Your task to perform on an android device: Open Youtube and go to "Your channel" Image 0: 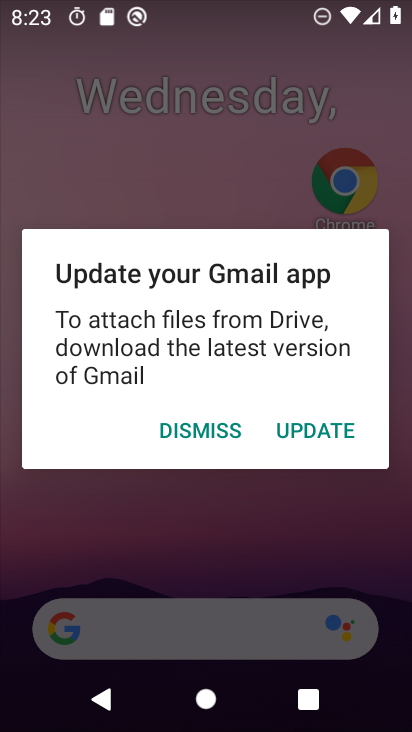
Step 0: press home button
Your task to perform on an android device: Open Youtube and go to "Your channel" Image 1: 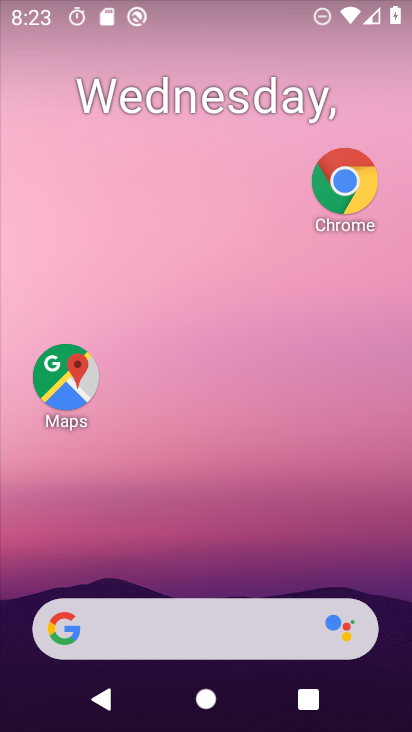
Step 1: drag from (237, 665) to (167, 232)
Your task to perform on an android device: Open Youtube and go to "Your channel" Image 2: 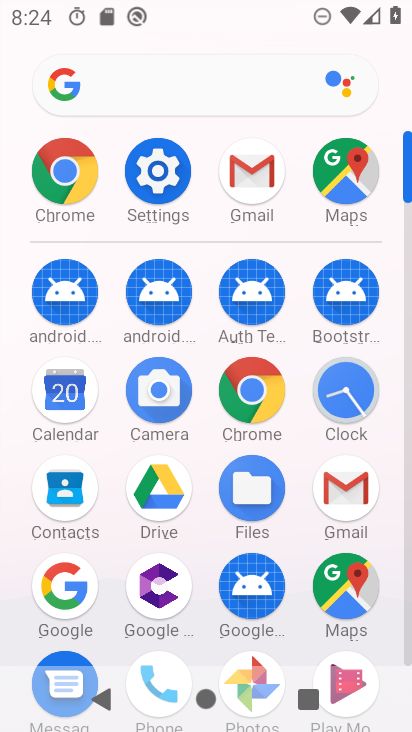
Step 2: drag from (209, 562) to (205, 299)
Your task to perform on an android device: Open Youtube and go to "Your channel" Image 3: 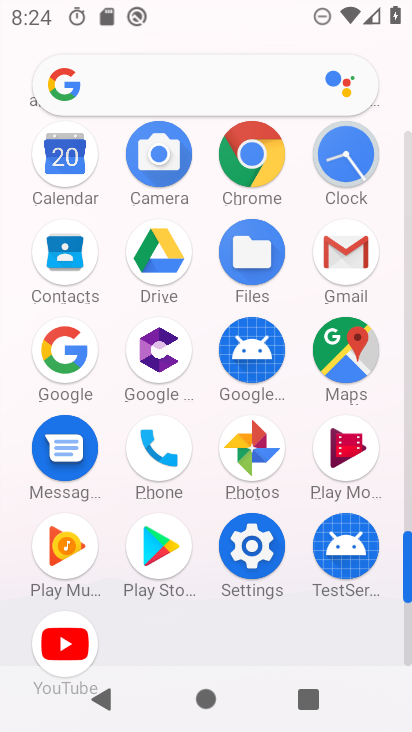
Step 3: click (71, 634)
Your task to perform on an android device: Open Youtube and go to "Your channel" Image 4: 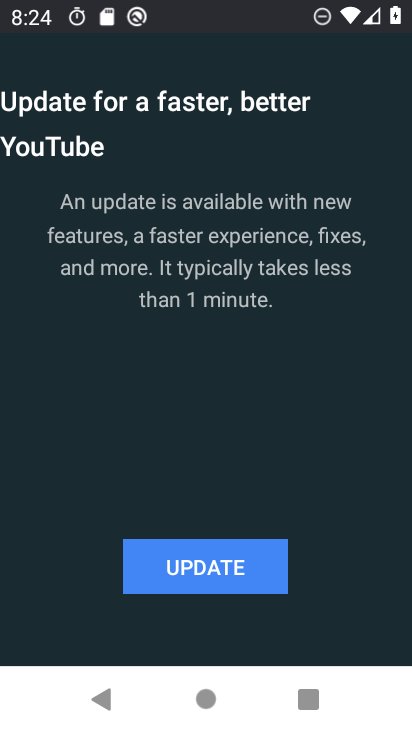
Step 4: click (198, 570)
Your task to perform on an android device: Open Youtube and go to "Your channel" Image 5: 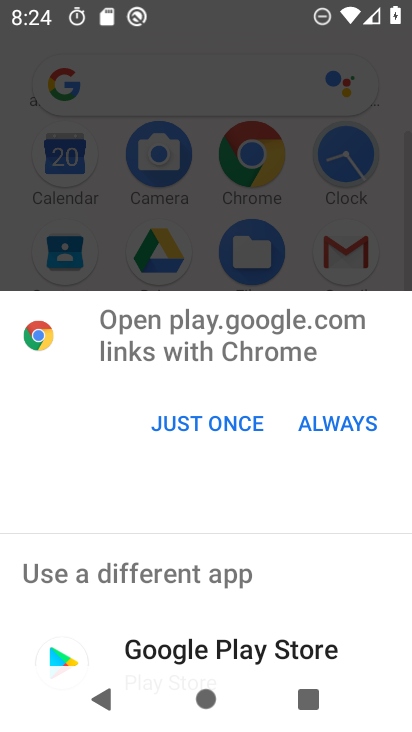
Step 5: click (129, 640)
Your task to perform on an android device: Open Youtube and go to "Your channel" Image 6: 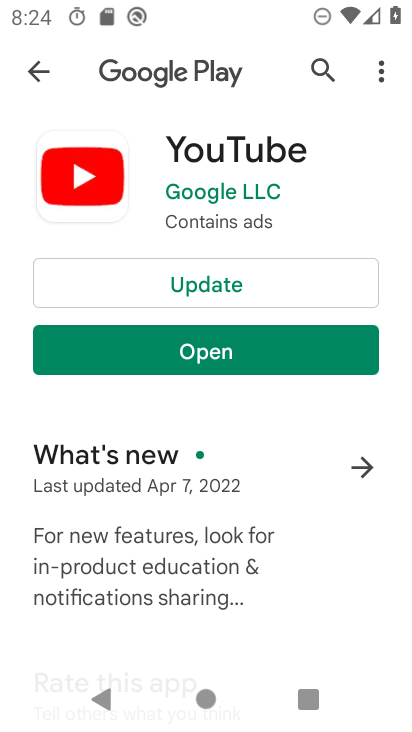
Step 6: click (188, 349)
Your task to perform on an android device: Open Youtube and go to "Your channel" Image 7: 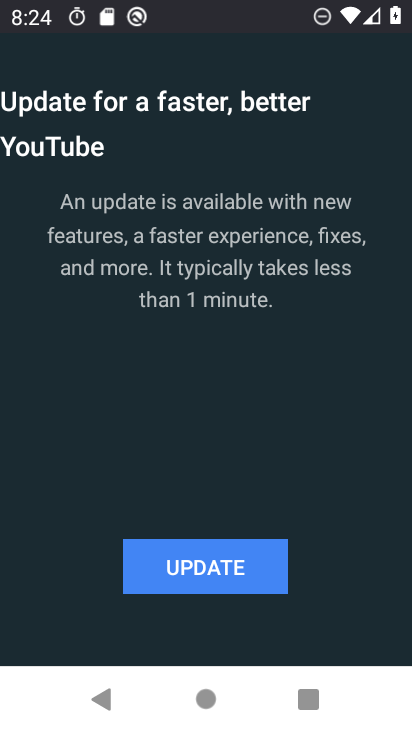
Step 7: click (205, 573)
Your task to perform on an android device: Open Youtube and go to "Your channel" Image 8: 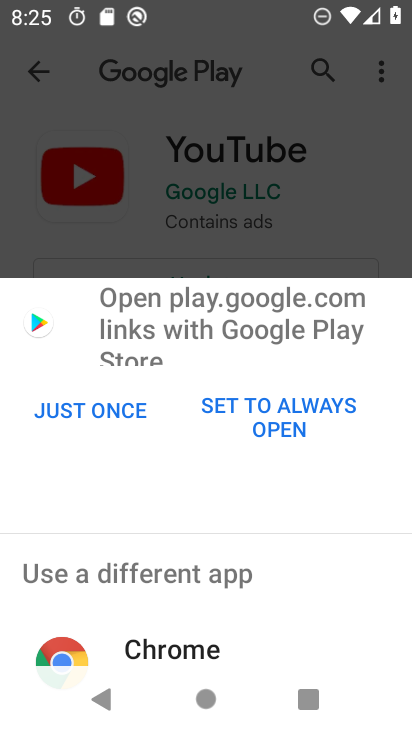
Step 8: click (88, 414)
Your task to perform on an android device: Open Youtube and go to "Your channel" Image 9: 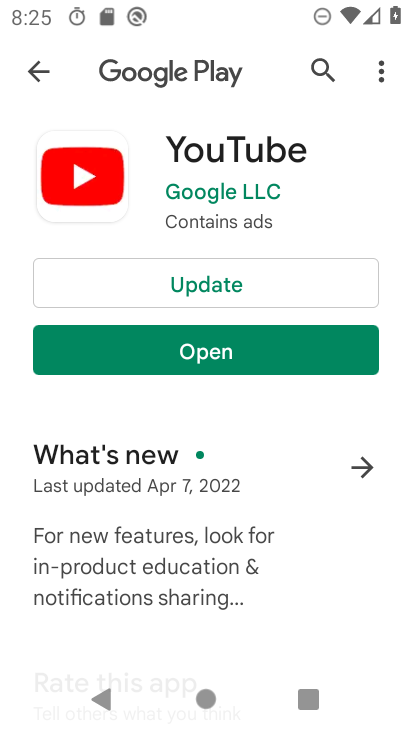
Step 9: click (171, 288)
Your task to perform on an android device: Open Youtube and go to "Your channel" Image 10: 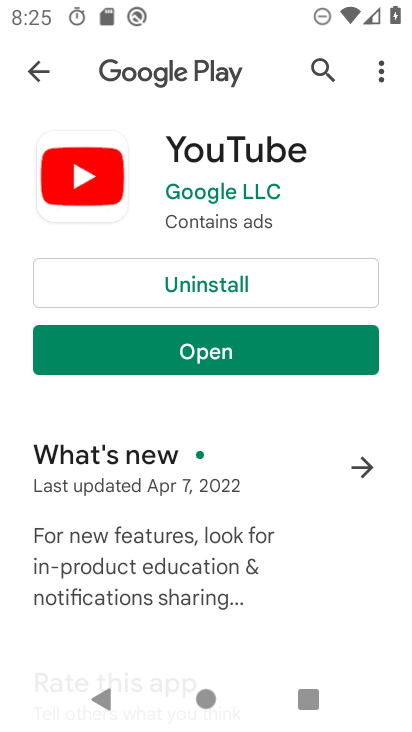
Step 10: click (201, 342)
Your task to perform on an android device: Open Youtube and go to "Your channel" Image 11: 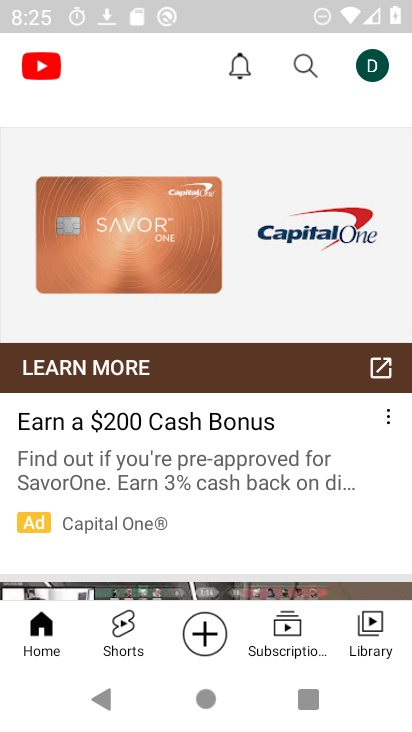
Step 11: click (367, 65)
Your task to perform on an android device: Open Youtube and go to "Your channel" Image 12: 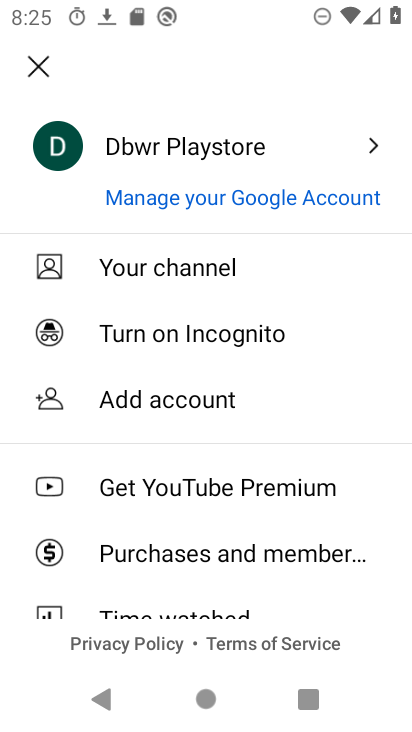
Step 12: click (213, 265)
Your task to perform on an android device: Open Youtube and go to "Your channel" Image 13: 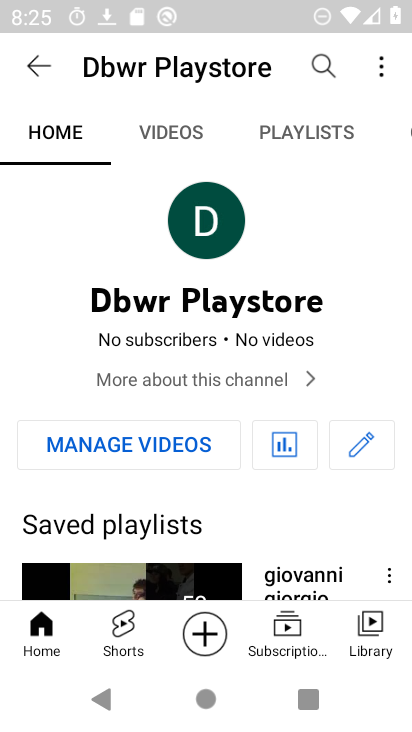
Step 13: task complete